Your task to perform on an android device: move an email to a new category in the gmail app Image 0: 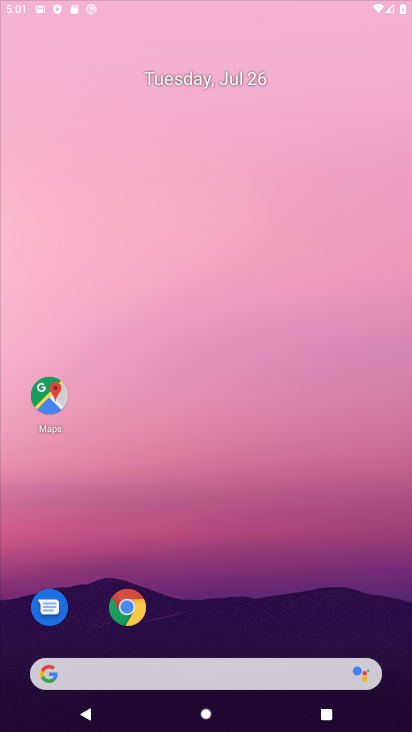
Step 0: press home button
Your task to perform on an android device: move an email to a new category in the gmail app Image 1: 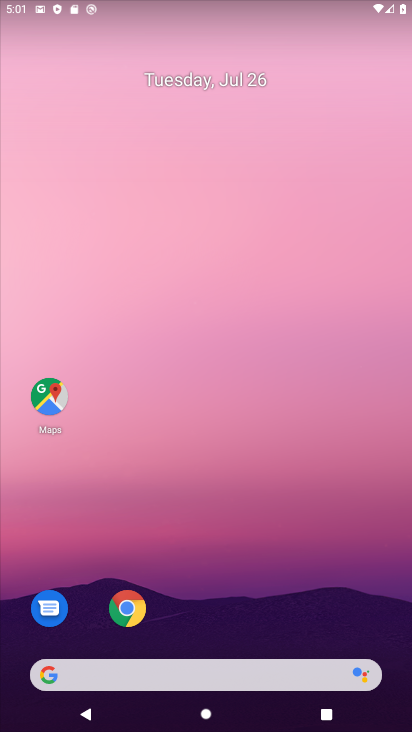
Step 1: drag from (253, 624) to (252, 71)
Your task to perform on an android device: move an email to a new category in the gmail app Image 2: 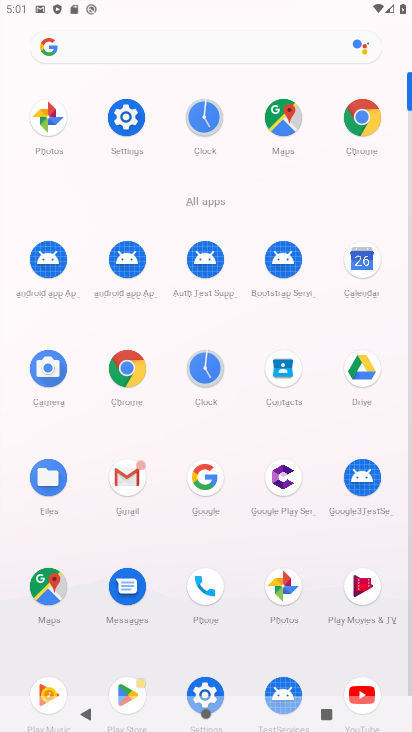
Step 2: click (117, 483)
Your task to perform on an android device: move an email to a new category in the gmail app Image 3: 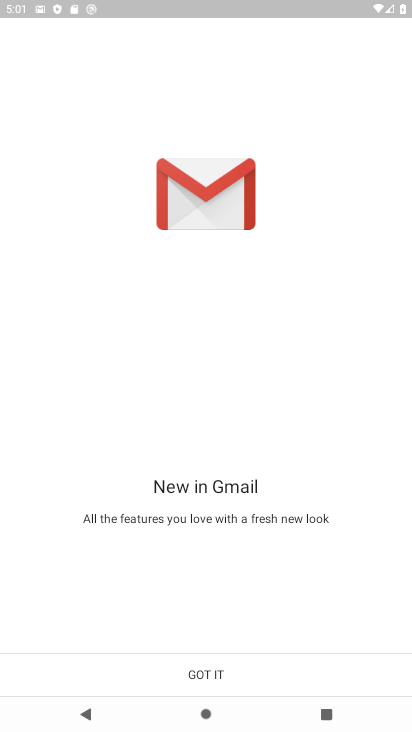
Step 3: click (201, 672)
Your task to perform on an android device: move an email to a new category in the gmail app Image 4: 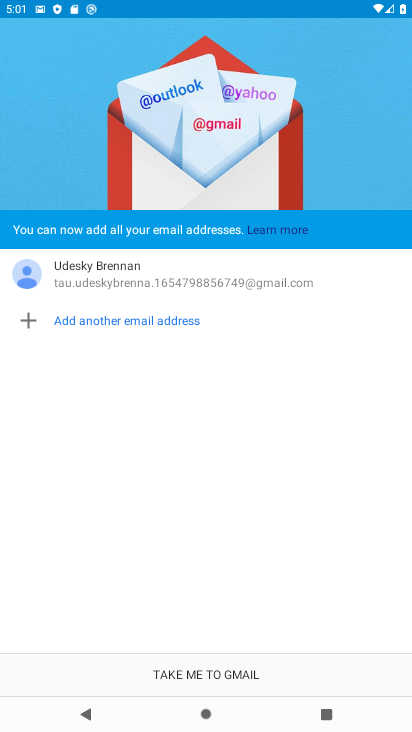
Step 4: click (211, 672)
Your task to perform on an android device: move an email to a new category in the gmail app Image 5: 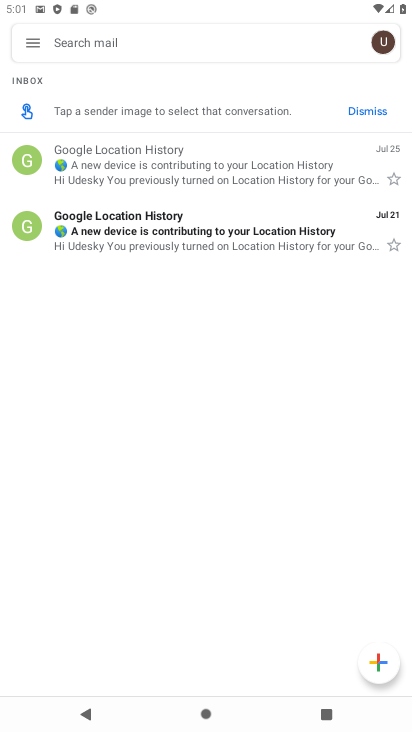
Step 5: click (152, 169)
Your task to perform on an android device: move an email to a new category in the gmail app Image 6: 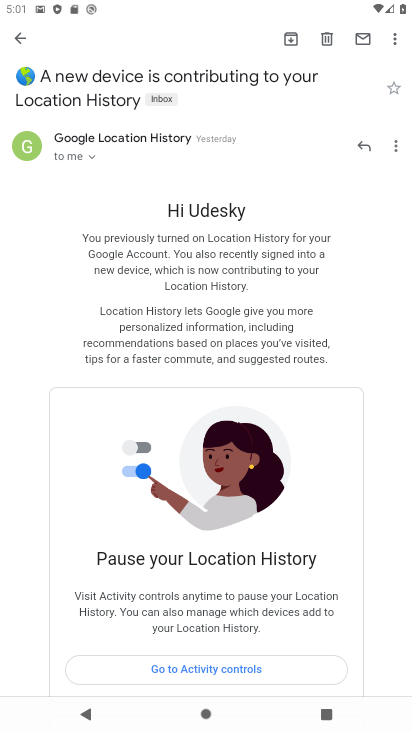
Step 6: click (398, 42)
Your task to perform on an android device: move an email to a new category in the gmail app Image 7: 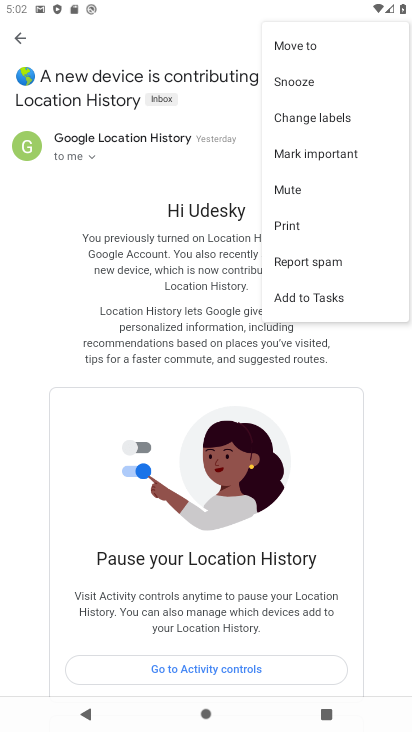
Step 7: click (295, 49)
Your task to perform on an android device: move an email to a new category in the gmail app Image 8: 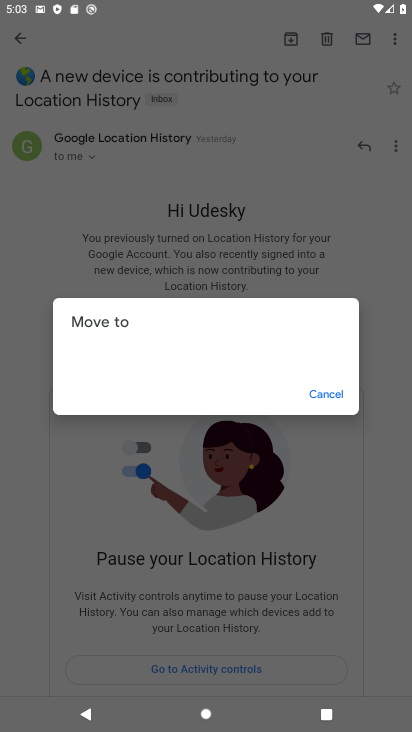
Step 8: task complete